Your task to perform on an android device: Search for sushi restaurants on Maps Image 0: 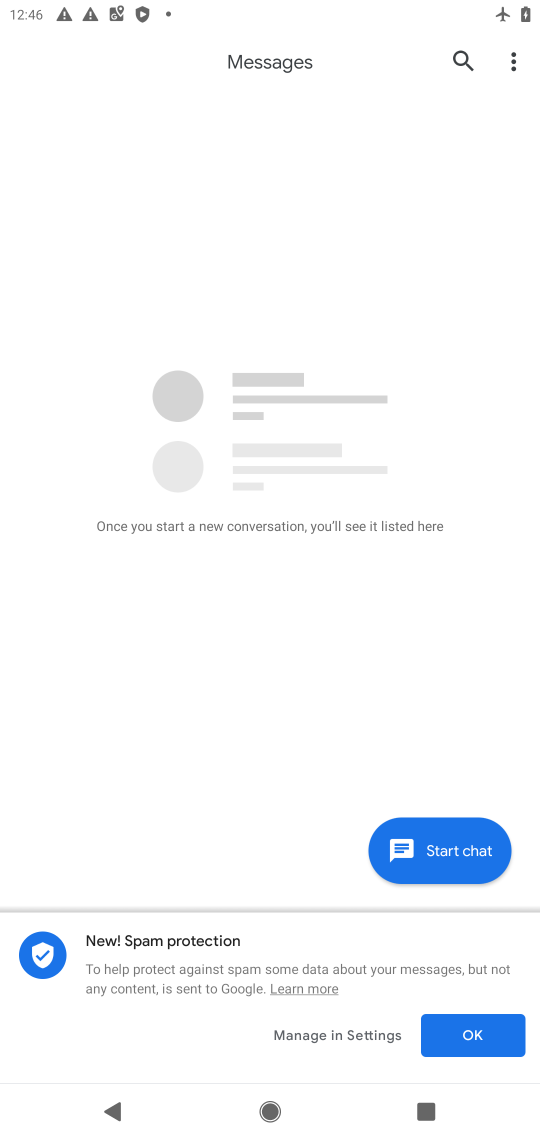
Step 0: press home button
Your task to perform on an android device: Search for sushi restaurants on Maps Image 1: 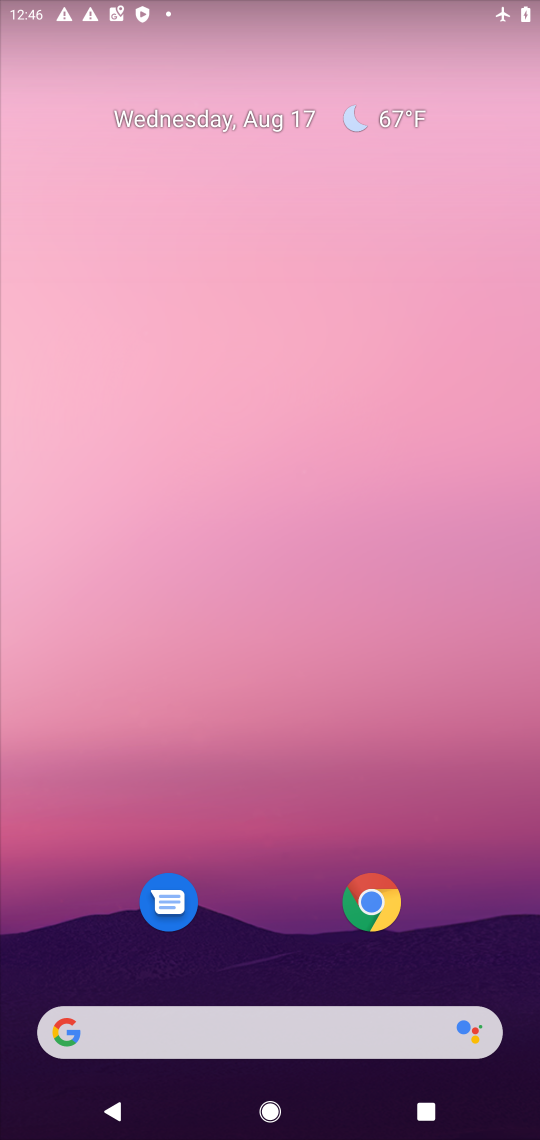
Step 1: drag from (262, 969) to (340, 296)
Your task to perform on an android device: Search for sushi restaurants on Maps Image 2: 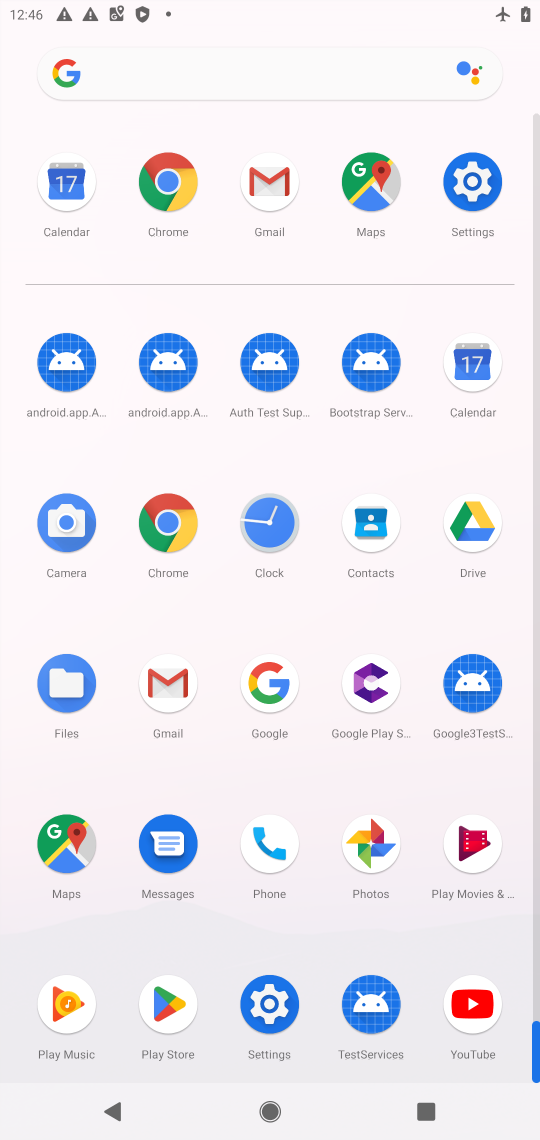
Step 2: click (39, 855)
Your task to perform on an android device: Search for sushi restaurants on Maps Image 3: 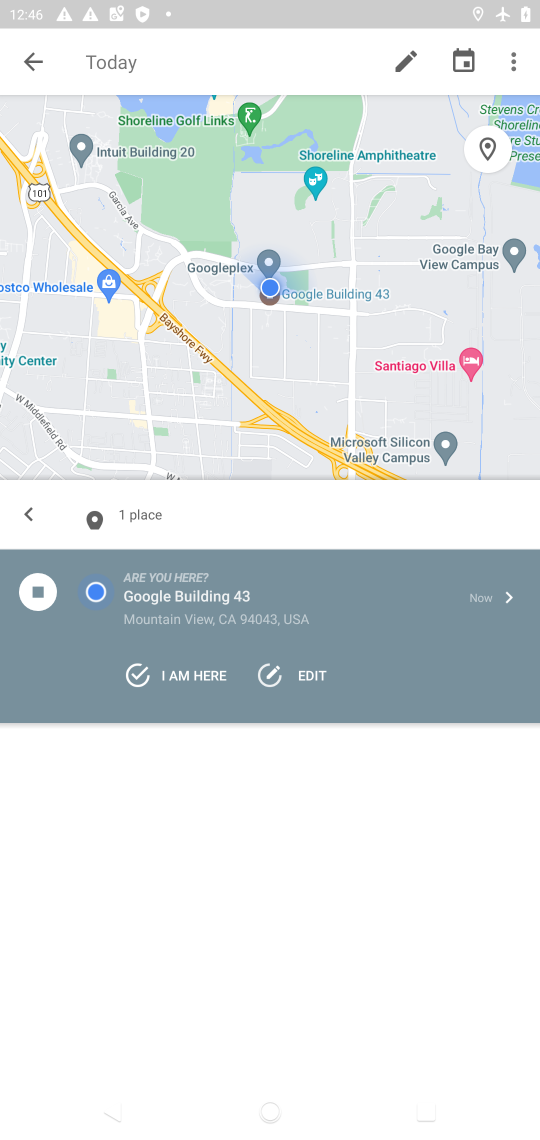
Step 3: click (32, 60)
Your task to perform on an android device: Search for sushi restaurants on Maps Image 4: 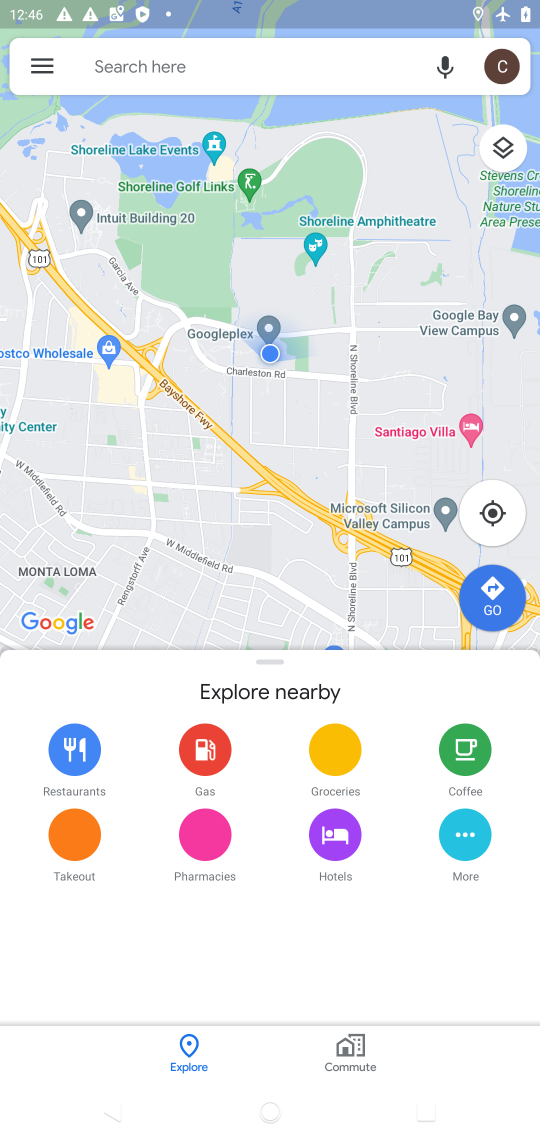
Step 4: click (227, 59)
Your task to perform on an android device: Search for sushi restaurants on Maps Image 5: 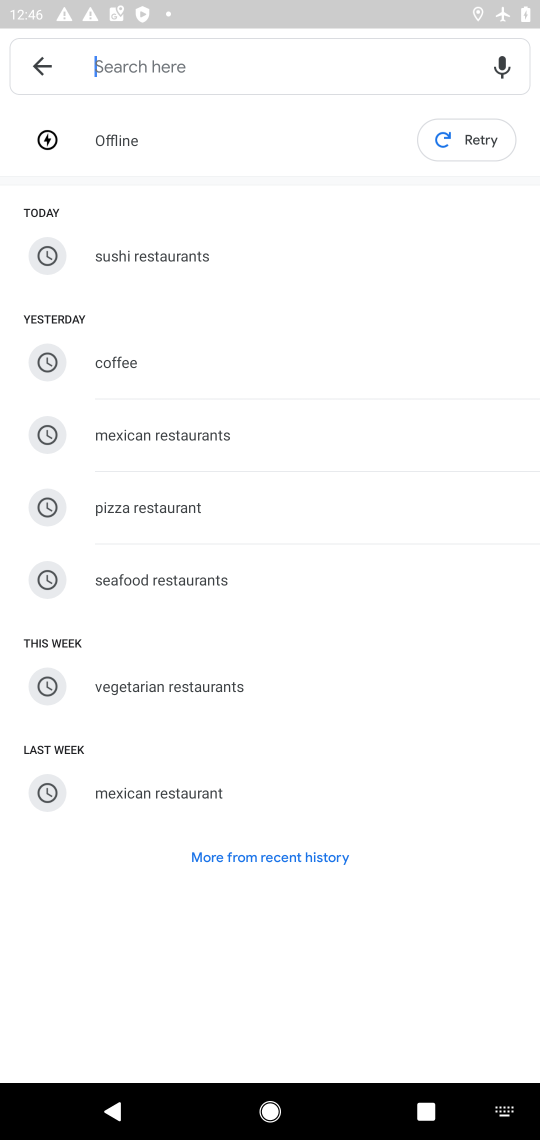
Step 5: type "sushi restaurants"
Your task to perform on an android device: Search for sushi restaurants on Maps Image 6: 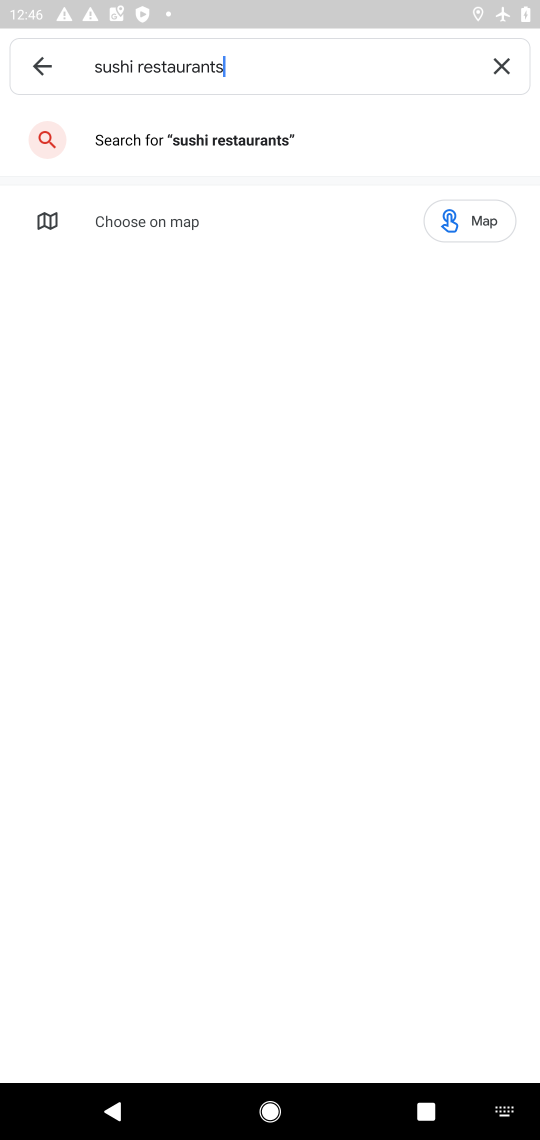
Step 6: click (252, 142)
Your task to perform on an android device: Search for sushi restaurants on Maps Image 7: 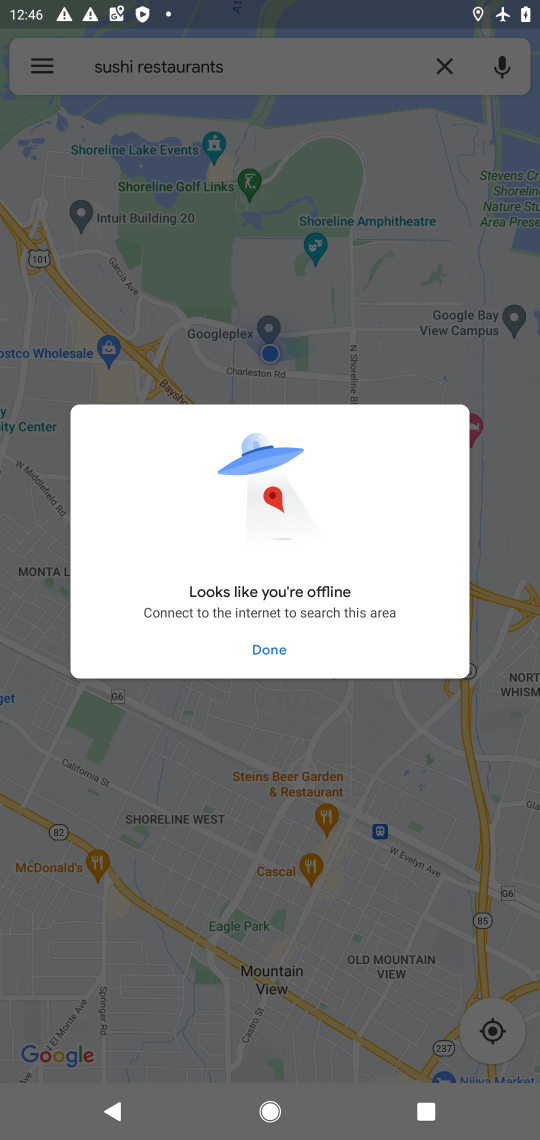
Step 7: task complete